Your task to perform on an android device: View the shopping cart on target. Search for alienware area 51 on target, select the first entry, and add it to the cart. Image 0: 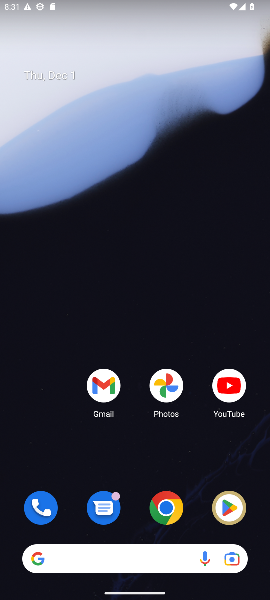
Step 0: click (166, 508)
Your task to perform on an android device: View the shopping cart on target. Search for alienware area 51 on target, select the first entry, and add it to the cart. Image 1: 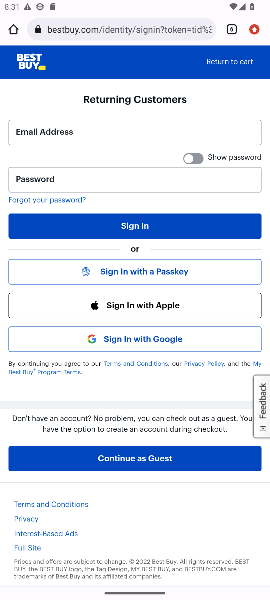
Step 1: click (229, 28)
Your task to perform on an android device: View the shopping cart on target. Search for alienware area 51 on target, select the first entry, and add it to the cart. Image 2: 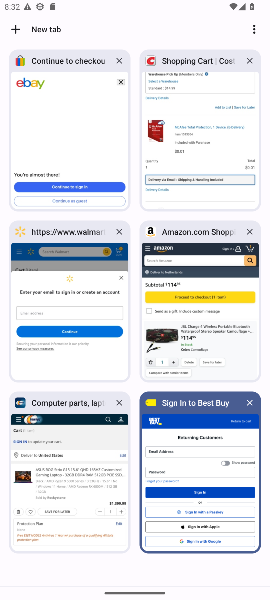
Step 2: click (36, 26)
Your task to perform on an android device: View the shopping cart on target. Search for alienware area 51 on target, select the first entry, and add it to the cart. Image 3: 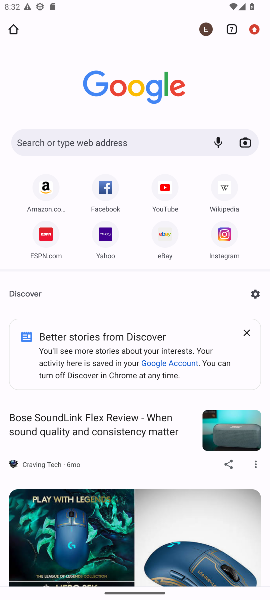
Step 3: click (100, 141)
Your task to perform on an android device: View the shopping cart on target. Search for alienware area 51 on target, select the first entry, and add it to the cart. Image 4: 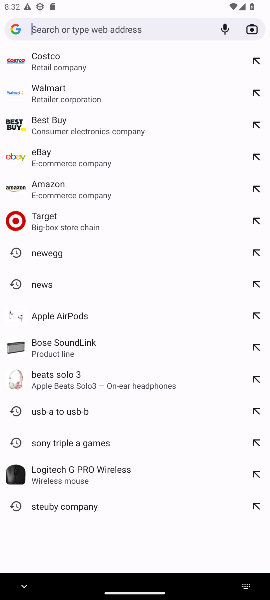
Step 4: click (42, 222)
Your task to perform on an android device: View the shopping cart on target. Search for alienware area 51 on target, select the first entry, and add it to the cart. Image 5: 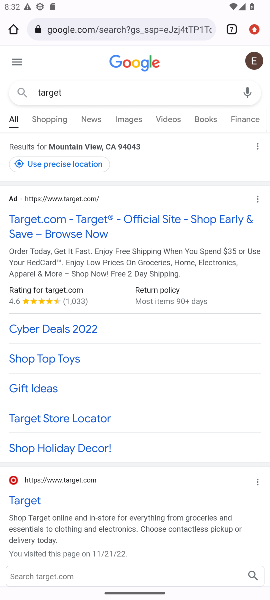
Step 5: click (46, 229)
Your task to perform on an android device: View the shopping cart on target. Search for alienware area 51 on target, select the first entry, and add it to the cart. Image 6: 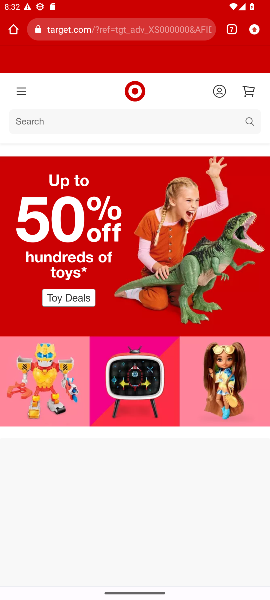
Step 6: click (244, 95)
Your task to perform on an android device: View the shopping cart on target. Search for alienware area 51 on target, select the first entry, and add it to the cart. Image 7: 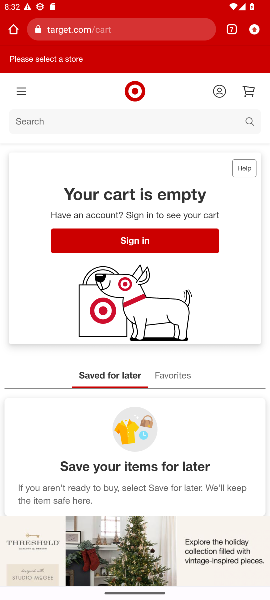
Step 7: click (101, 120)
Your task to perform on an android device: View the shopping cart on target. Search for alienware area 51 on target, select the first entry, and add it to the cart. Image 8: 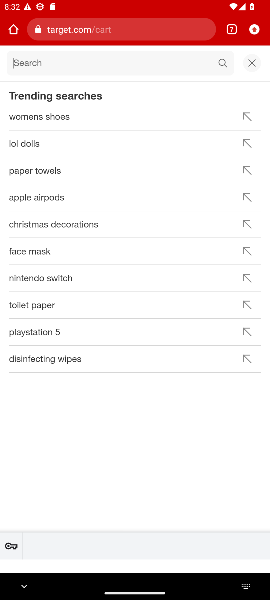
Step 8: type "alienware area 51 "
Your task to perform on an android device: View the shopping cart on target. Search for alienware area 51 on target, select the first entry, and add it to the cart. Image 9: 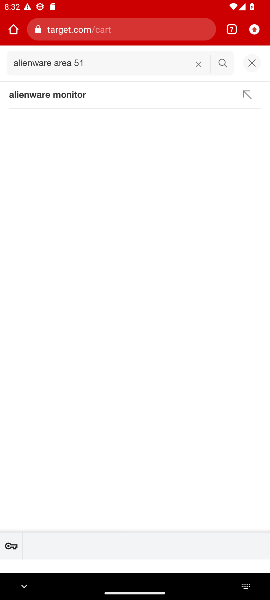
Step 9: click (222, 67)
Your task to perform on an android device: View the shopping cart on target. Search for alienware area 51 on target, select the first entry, and add it to the cart. Image 10: 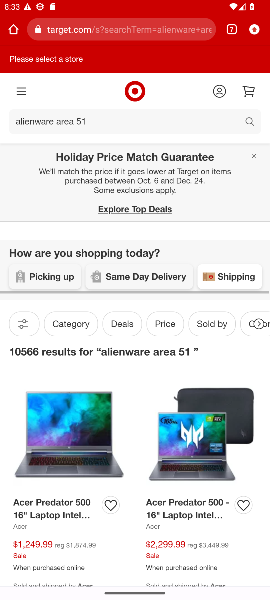
Step 10: click (81, 465)
Your task to perform on an android device: View the shopping cart on target. Search for alienware area 51 on target, select the first entry, and add it to the cart. Image 11: 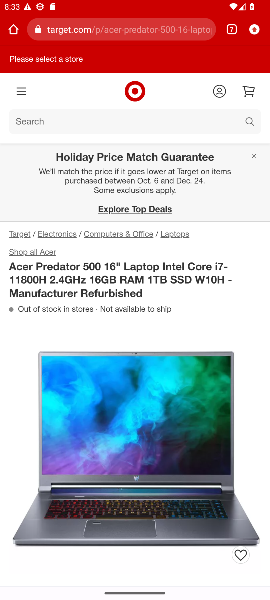
Step 11: drag from (134, 321) to (153, 133)
Your task to perform on an android device: View the shopping cart on target. Search for alienware area 51 on target, select the first entry, and add it to the cart. Image 12: 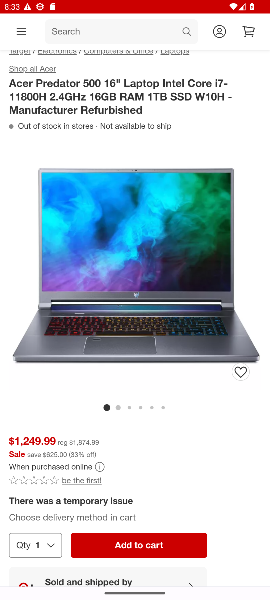
Step 12: press back button
Your task to perform on an android device: View the shopping cart on target. Search for alienware area 51 on target, select the first entry, and add it to the cart. Image 13: 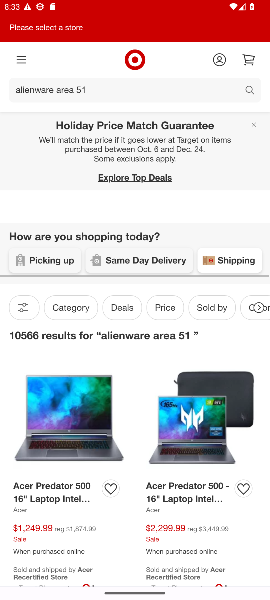
Step 13: drag from (115, 533) to (102, 244)
Your task to perform on an android device: View the shopping cart on target. Search for alienware area 51 on target, select the first entry, and add it to the cart. Image 14: 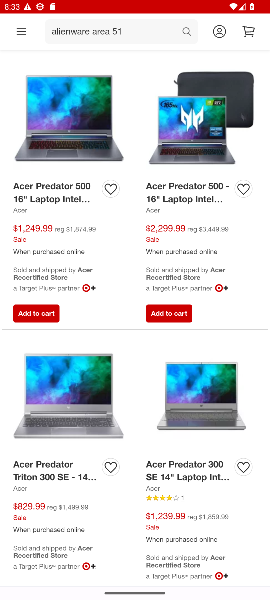
Step 14: drag from (120, 559) to (117, 230)
Your task to perform on an android device: View the shopping cart on target. Search for alienware area 51 on target, select the first entry, and add it to the cart. Image 15: 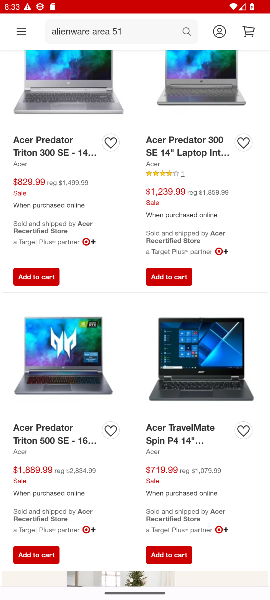
Step 15: drag from (108, 220) to (104, 539)
Your task to perform on an android device: View the shopping cart on target. Search for alienware area 51 on target, select the first entry, and add it to the cart. Image 16: 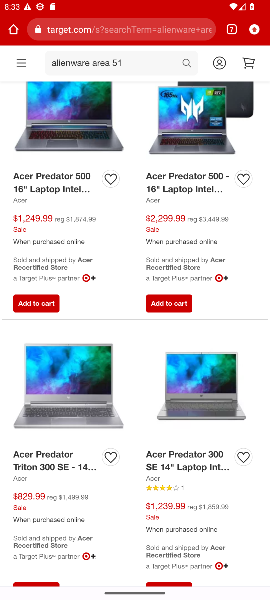
Step 16: drag from (131, 167) to (130, 362)
Your task to perform on an android device: View the shopping cart on target. Search for alienware area 51 on target, select the first entry, and add it to the cart. Image 17: 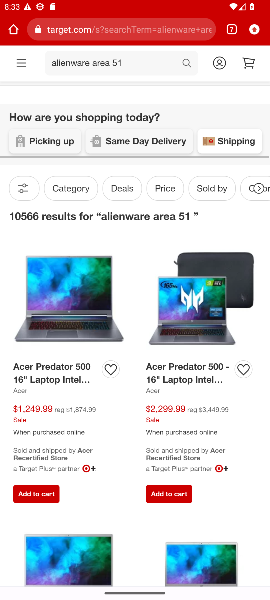
Step 17: click (77, 383)
Your task to perform on an android device: View the shopping cart on target. Search for alienware area 51 on target, select the first entry, and add it to the cart. Image 18: 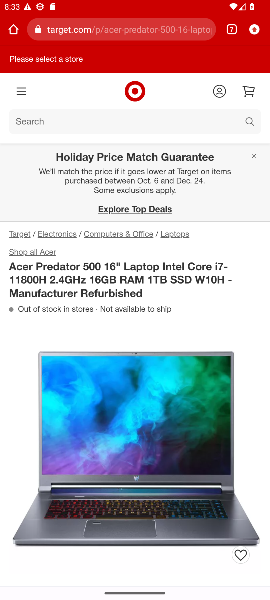
Step 18: task complete